Your task to perform on an android device: uninstall "Duolingo: language lessons" Image 0: 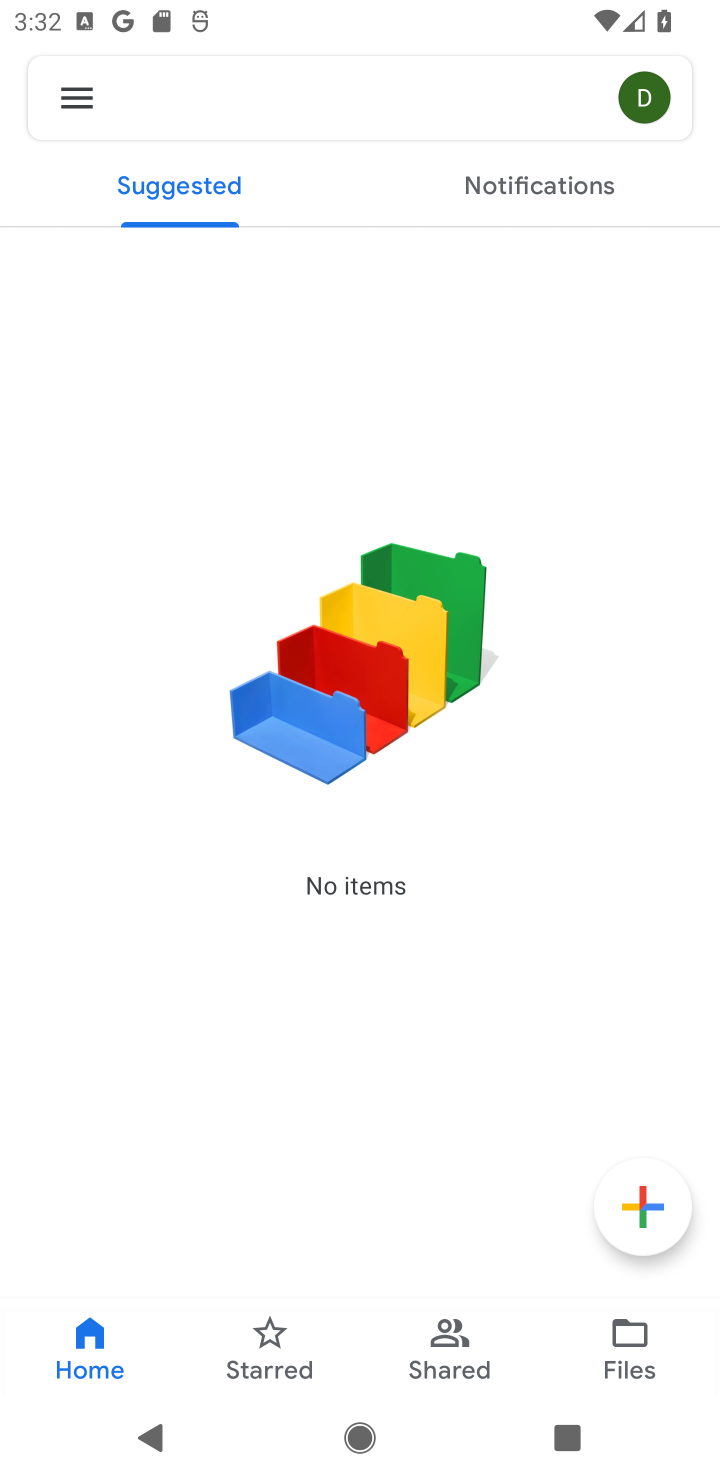
Step 0: press home button
Your task to perform on an android device: uninstall "Duolingo: language lessons" Image 1: 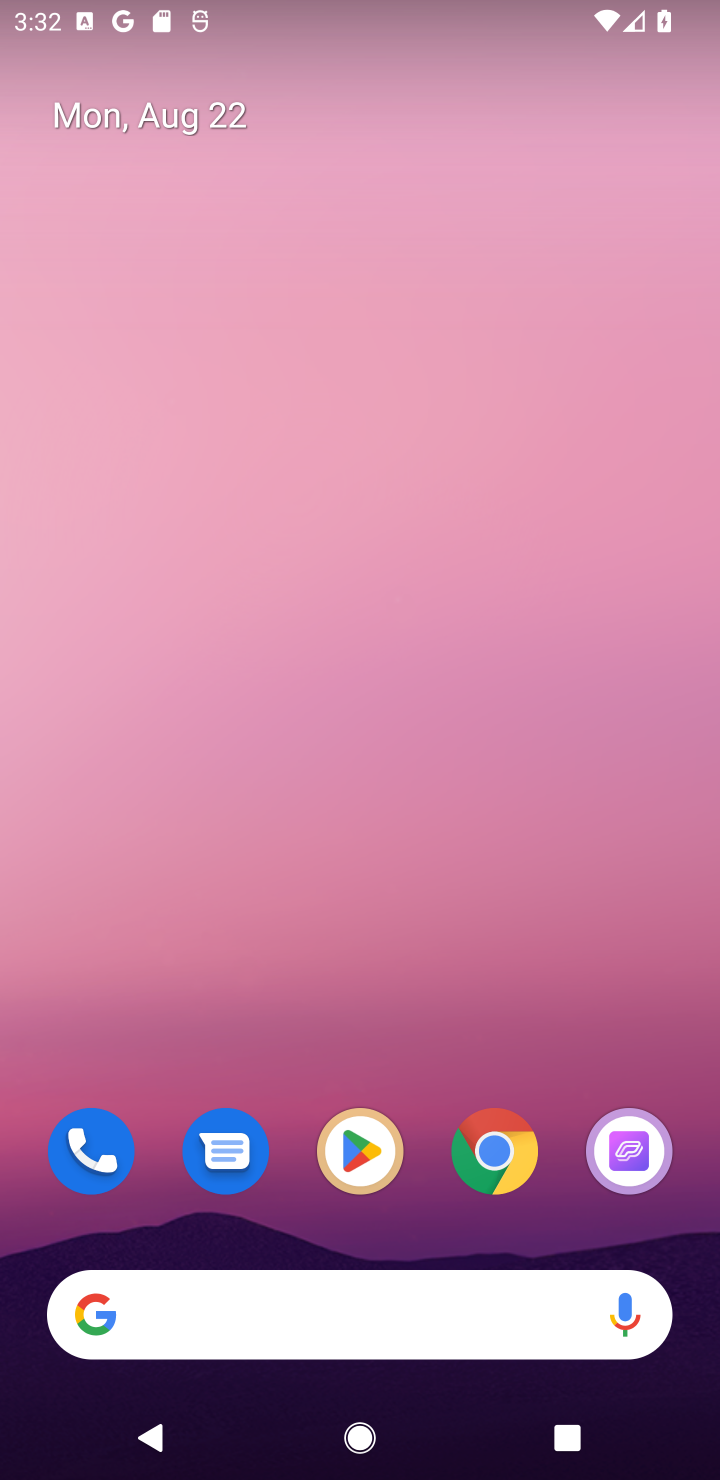
Step 1: click (373, 1155)
Your task to perform on an android device: uninstall "Duolingo: language lessons" Image 2: 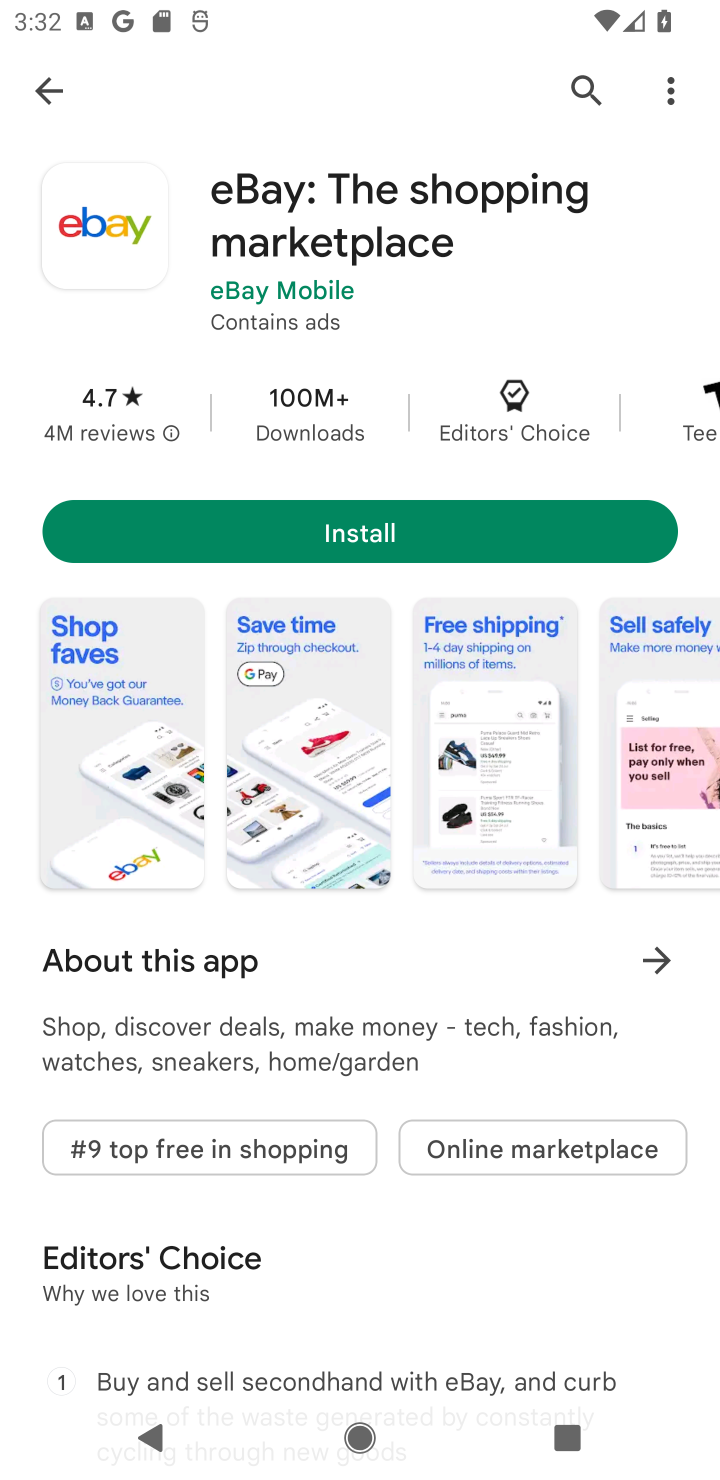
Step 2: click (581, 90)
Your task to perform on an android device: uninstall "Duolingo: language lessons" Image 3: 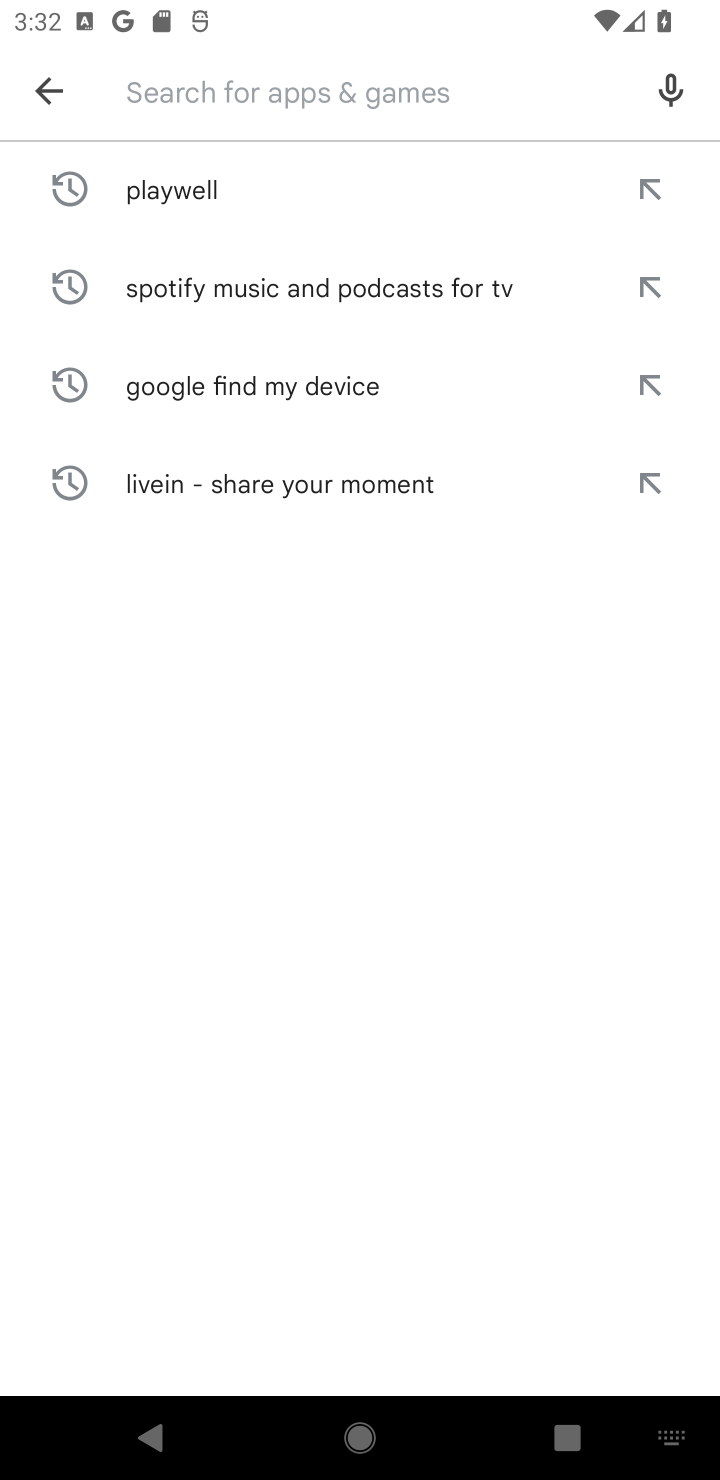
Step 3: type "Duolingo: language lessons"
Your task to perform on an android device: uninstall "Duolingo: language lessons" Image 4: 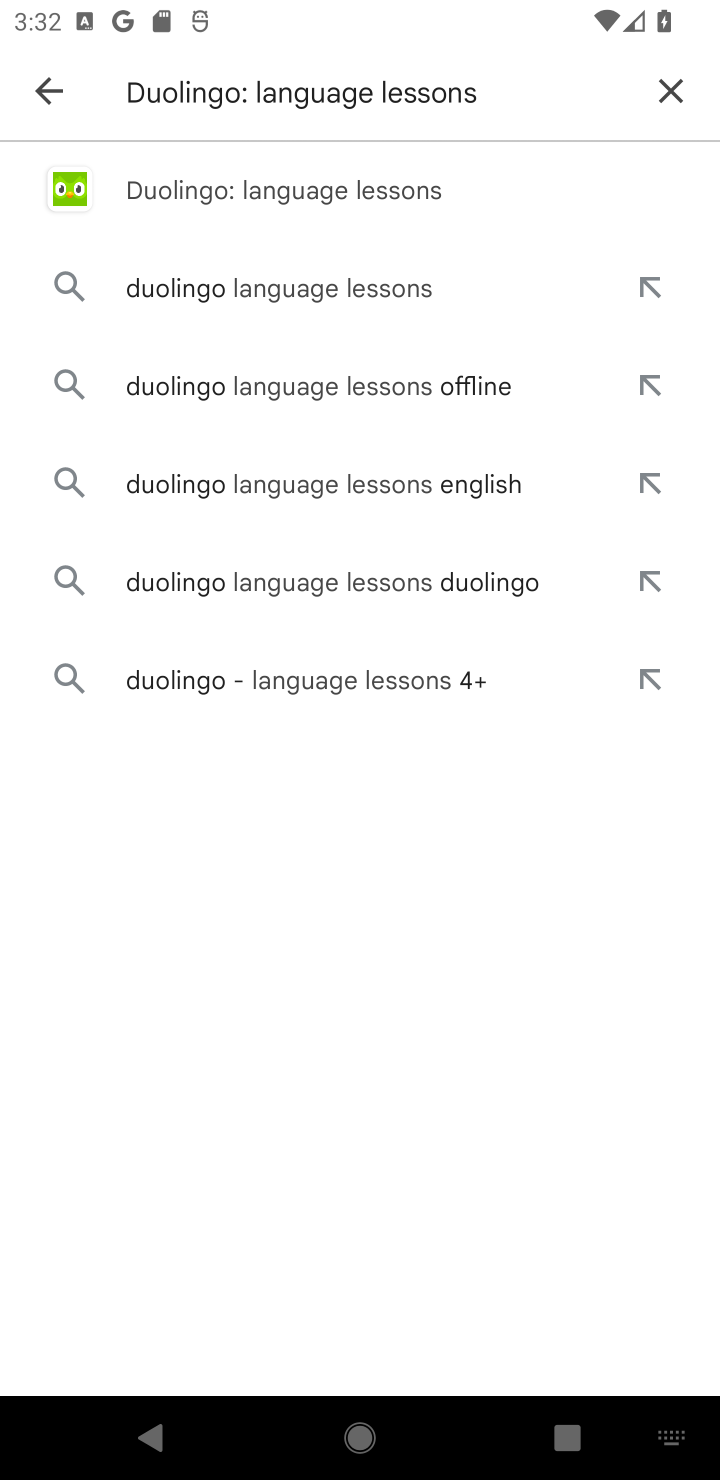
Step 4: click (313, 192)
Your task to perform on an android device: uninstall "Duolingo: language lessons" Image 5: 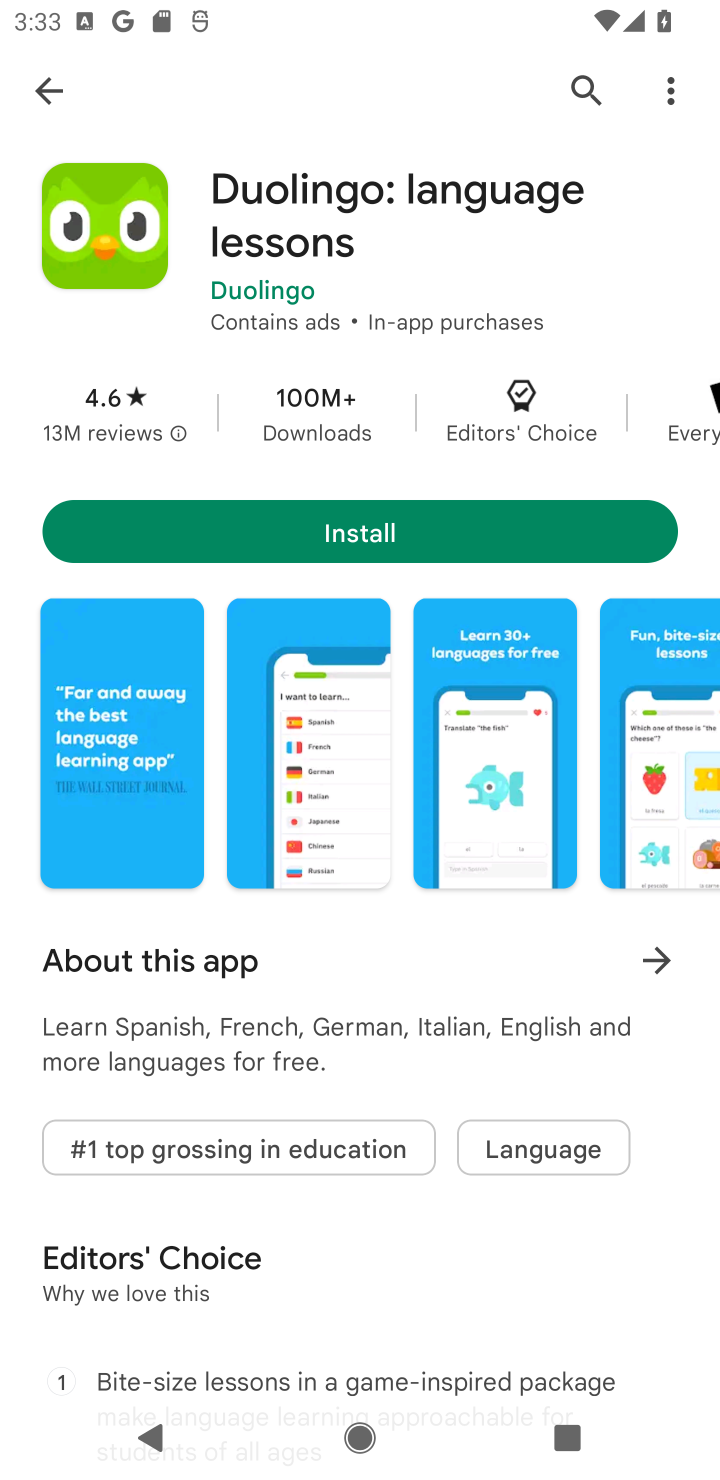
Step 5: task complete